Your task to perform on an android device: find snoozed emails in the gmail app Image 0: 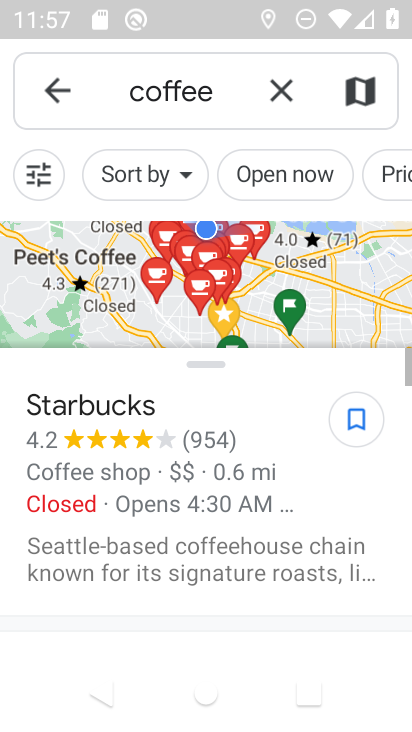
Step 0: press home button
Your task to perform on an android device: find snoozed emails in the gmail app Image 1: 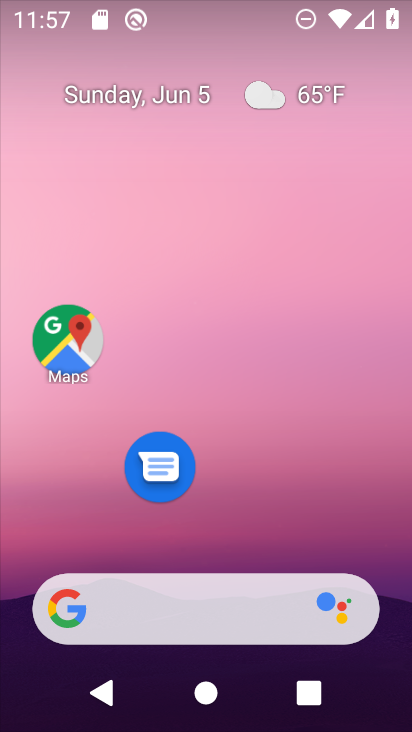
Step 1: drag from (321, 577) to (309, 0)
Your task to perform on an android device: find snoozed emails in the gmail app Image 2: 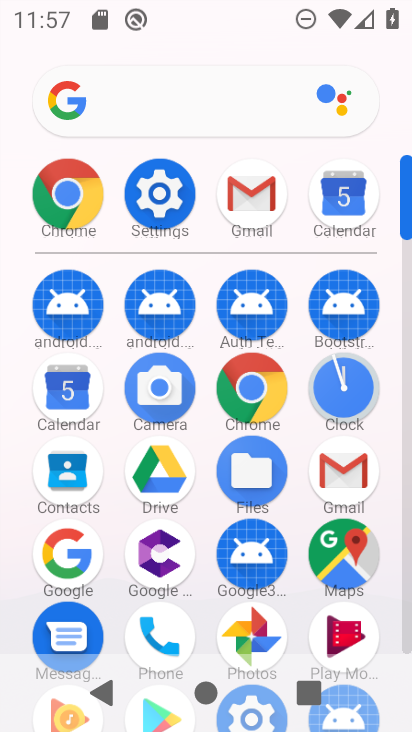
Step 2: click (254, 194)
Your task to perform on an android device: find snoozed emails in the gmail app Image 3: 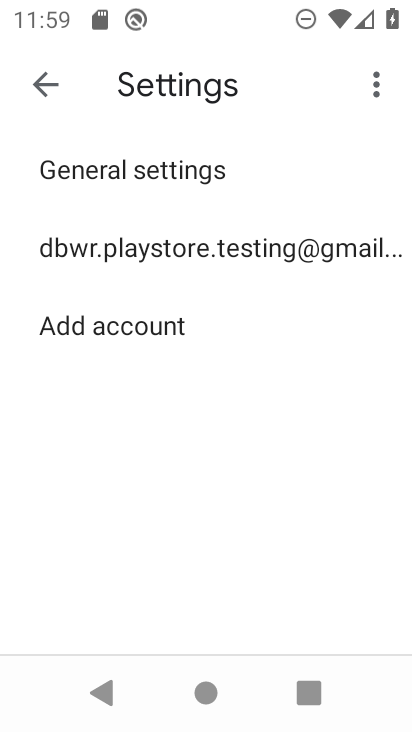
Step 3: click (42, 92)
Your task to perform on an android device: find snoozed emails in the gmail app Image 4: 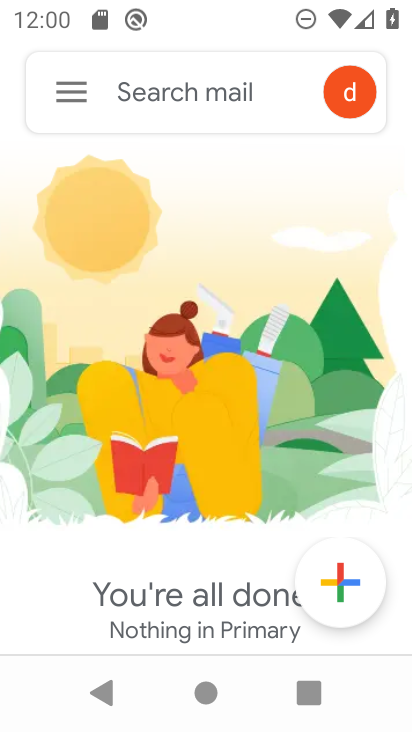
Step 4: click (65, 95)
Your task to perform on an android device: find snoozed emails in the gmail app Image 5: 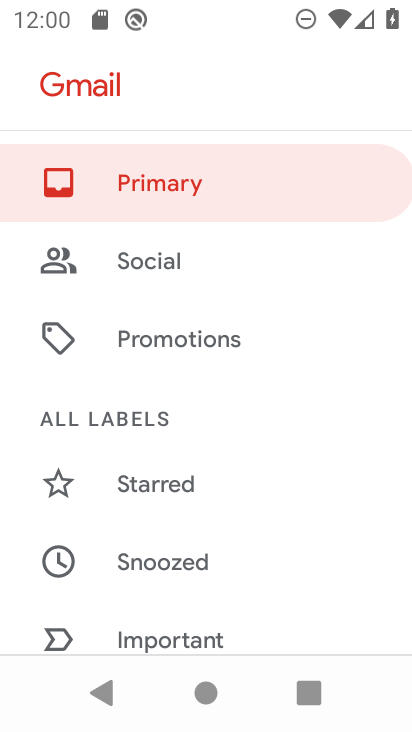
Step 5: click (168, 561)
Your task to perform on an android device: find snoozed emails in the gmail app Image 6: 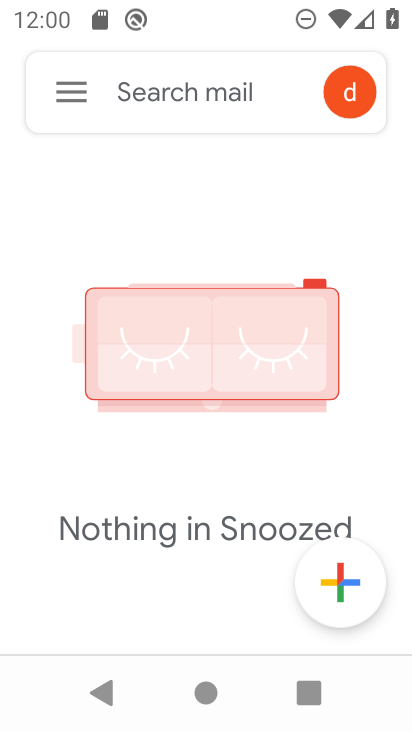
Step 6: task complete